Your task to perform on an android device: Search for 12ft 120W LED tube light on home depot Image 0: 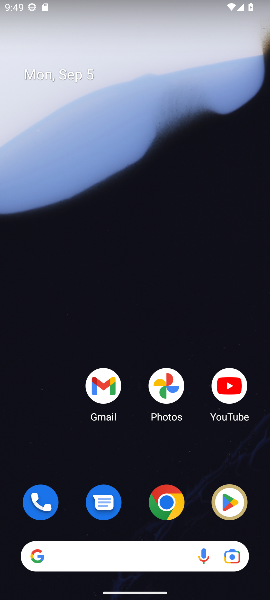
Step 0: drag from (179, 144) to (134, 3)
Your task to perform on an android device: Search for 12ft 120W LED tube light on home depot Image 1: 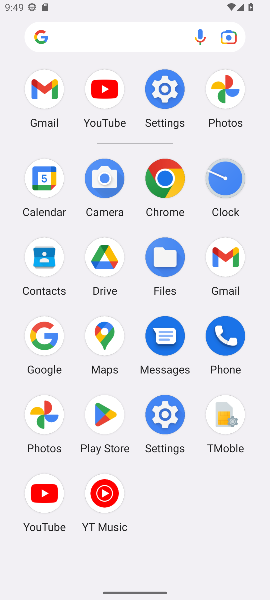
Step 1: click (48, 332)
Your task to perform on an android device: Search for 12ft 120W LED tube light on home depot Image 2: 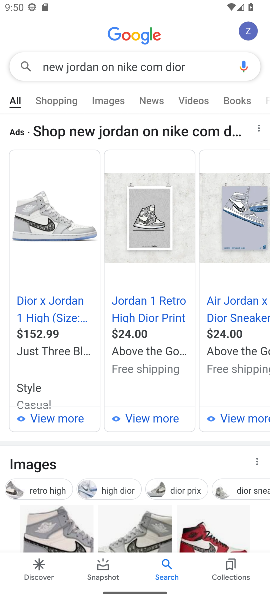
Step 2: press back button
Your task to perform on an android device: Search for 12ft 120W LED tube light on home depot Image 3: 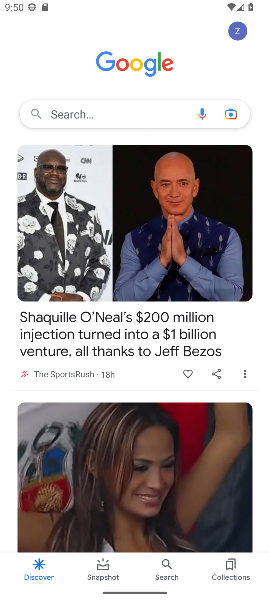
Step 3: click (76, 116)
Your task to perform on an android device: Search for 12ft 120W LED tube light on home depot Image 4: 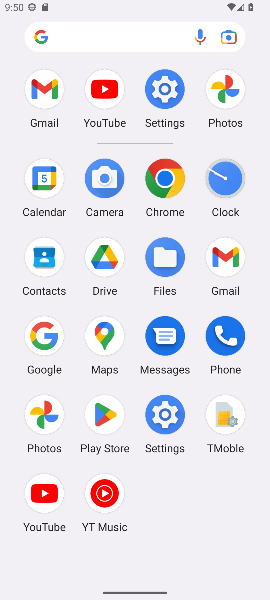
Step 4: click (36, 343)
Your task to perform on an android device: Search for 12ft 120W LED tube light on home depot Image 5: 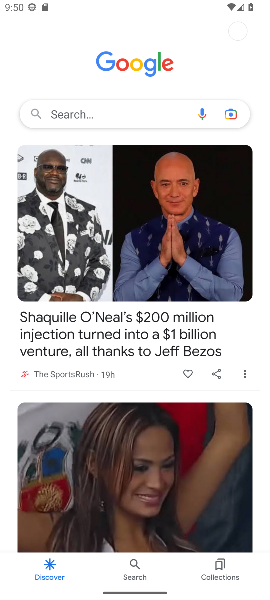
Step 5: click (80, 106)
Your task to perform on an android device: Search for 12ft 120W LED tube light on home depot Image 6: 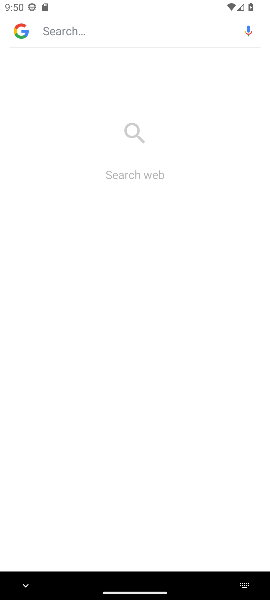
Step 6: type "12ft 120W LED tube light on home depot"
Your task to perform on an android device: Search for 12ft 120W LED tube light on home depot Image 7: 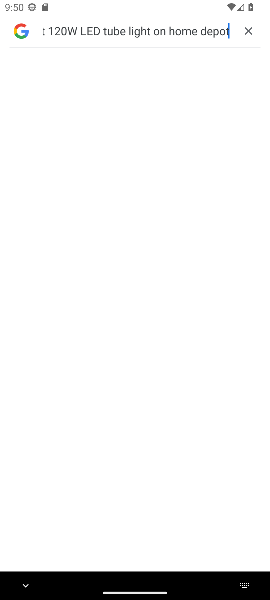
Step 7: task complete